Your task to perform on an android device: turn off priority inbox in the gmail app Image 0: 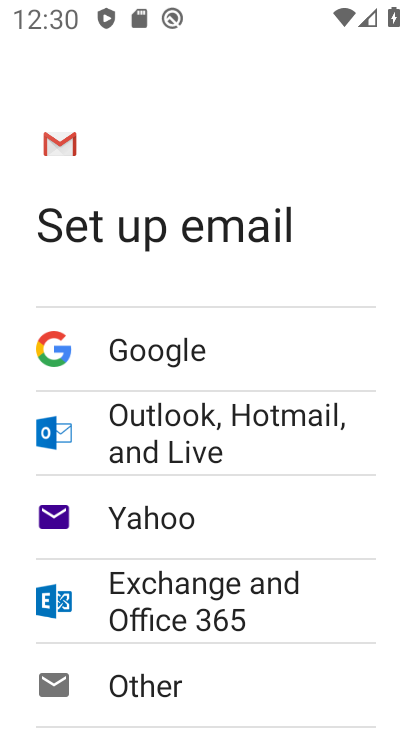
Step 0: press back button
Your task to perform on an android device: turn off priority inbox in the gmail app Image 1: 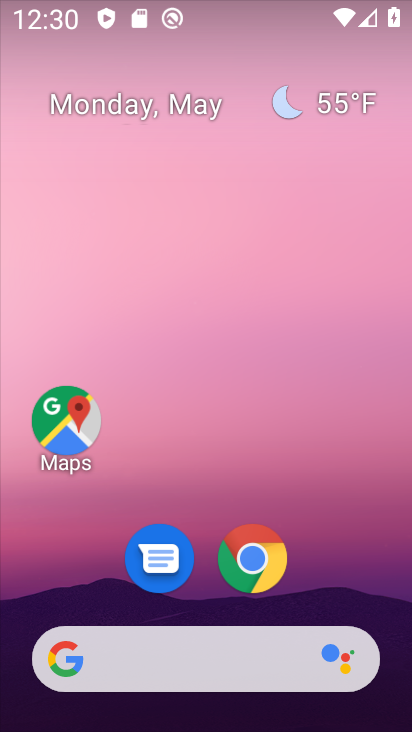
Step 1: drag from (326, 549) to (266, 44)
Your task to perform on an android device: turn off priority inbox in the gmail app Image 2: 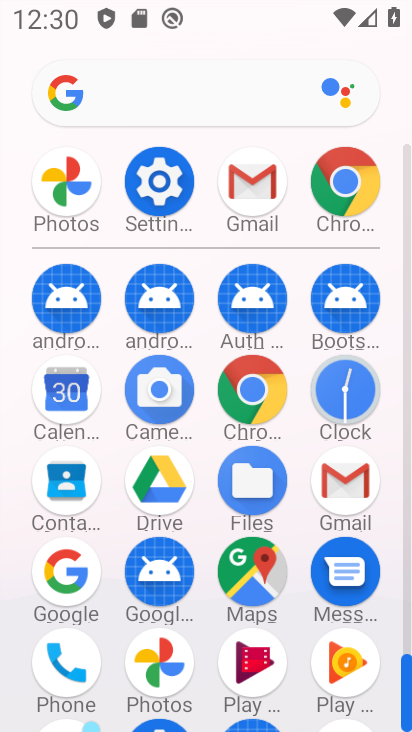
Step 2: click (336, 480)
Your task to perform on an android device: turn off priority inbox in the gmail app Image 3: 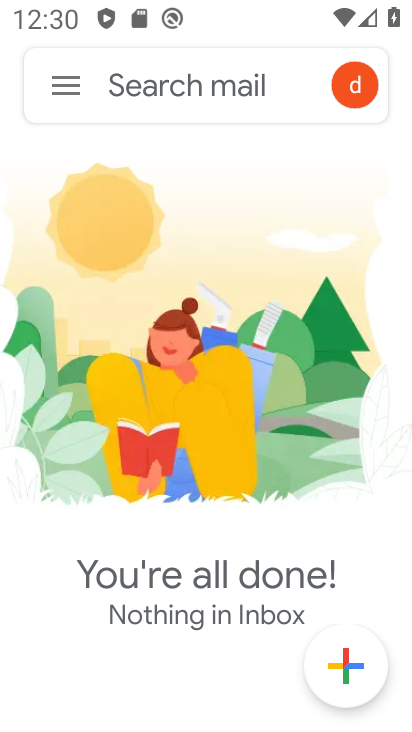
Step 3: click (61, 85)
Your task to perform on an android device: turn off priority inbox in the gmail app Image 4: 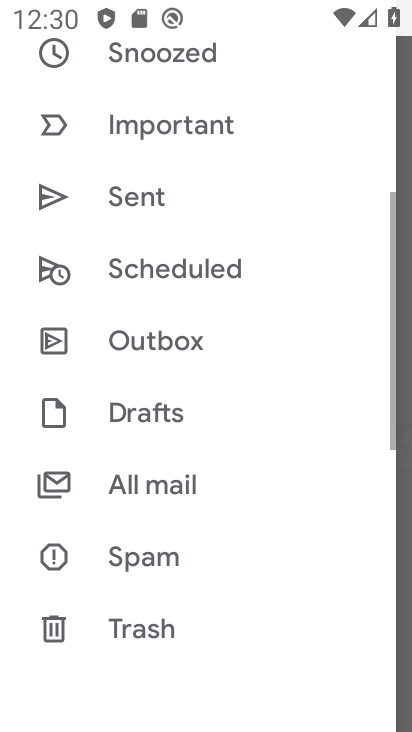
Step 4: drag from (239, 555) to (249, 98)
Your task to perform on an android device: turn off priority inbox in the gmail app Image 5: 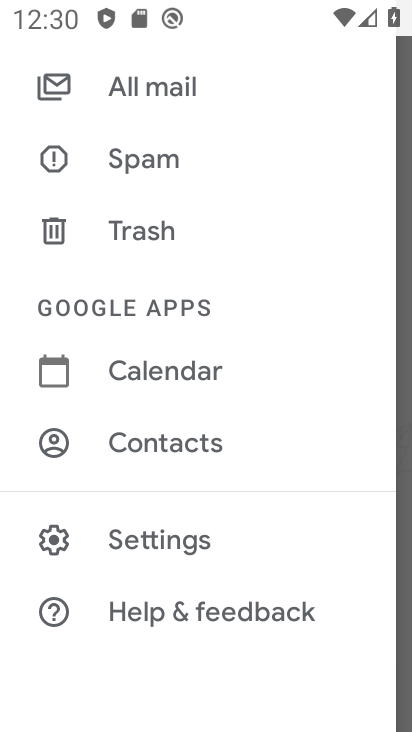
Step 5: click (195, 560)
Your task to perform on an android device: turn off priority inbox in the gmail app Image 6: 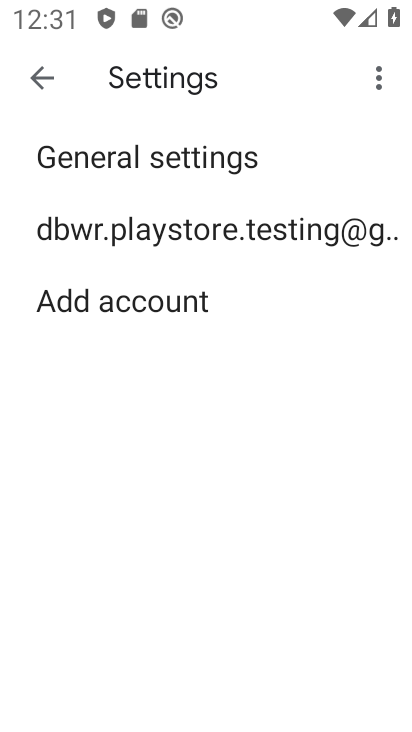
Step 6: click (206, 232)
Your task to perform on an android device: turn off priority inbox in the gmail app Image 7: 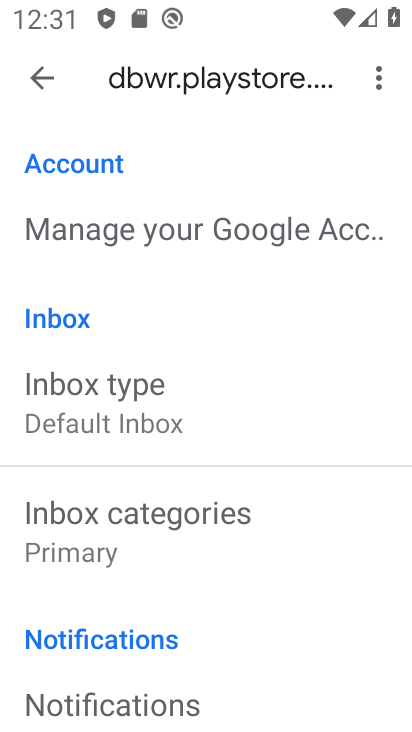
Step 7: click (160, 404)
Your task to perform on an android device: turn off priority inbox in the gmail app Image 8: 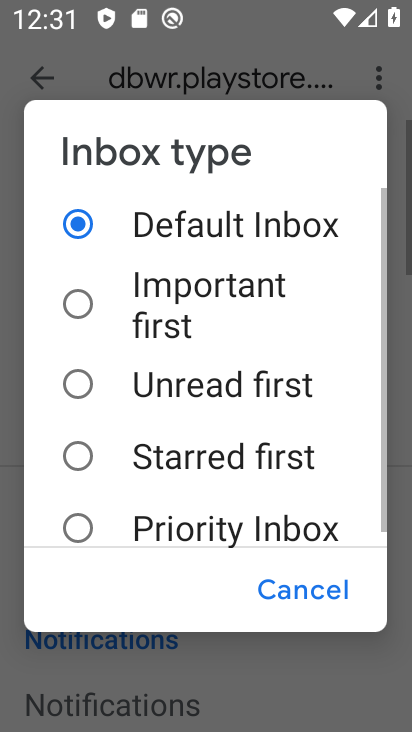
Step 8: click (232, 509)
Your task to perform on an android device: turn off priority inbox in the gmail app Image 9: 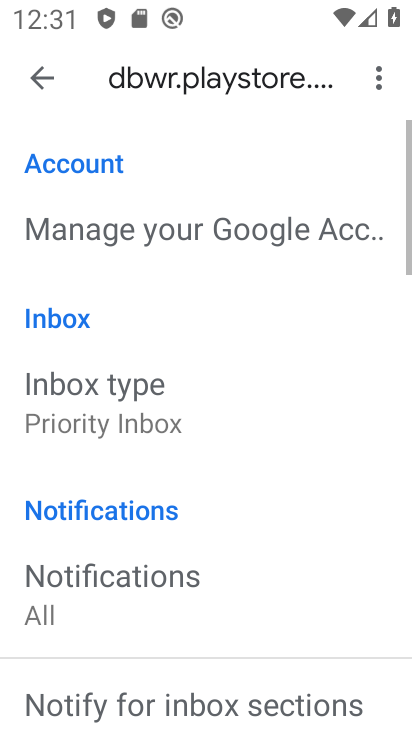
Step 9: drag from (253, 560) to (256, 208)
Your task to perform on an android device: turn off priority inbox in the gmail app Image 10: 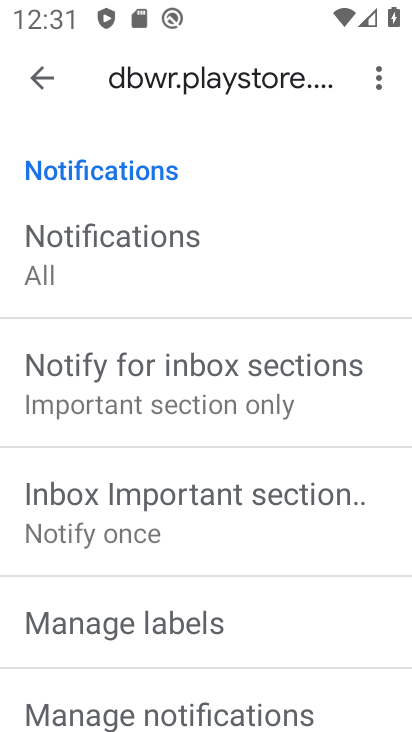
Step 10: drag from (269, 550) to (276, 173)
Your task to perform on an android device: turn off priority inbox in the gmail app Image 11: 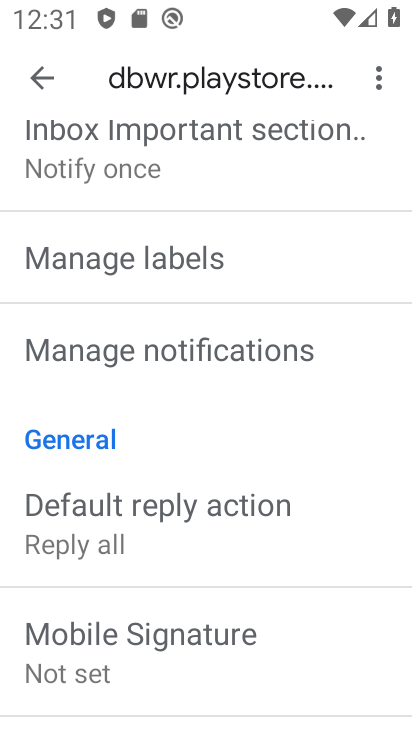
Step 11: drag from (239, 557) to (247, 127)
Your task to perform on an android device: turn off priority inbox in the gmail app Image 12: 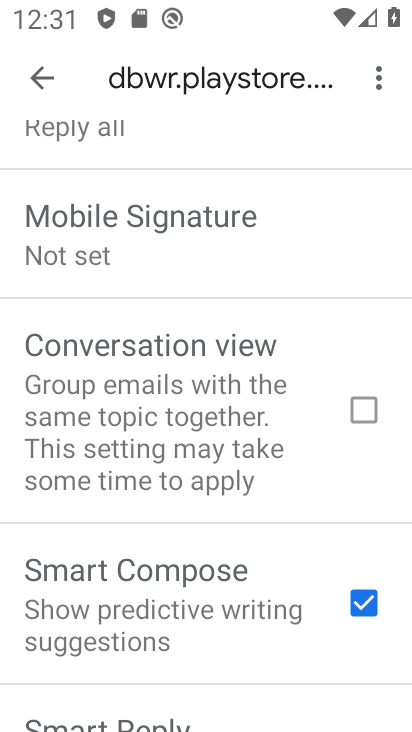
Step 12: drag from (280, 550) to (284, 187)
Your task to perform on an android device: turn off priority inbox in the gmail app Image 13: 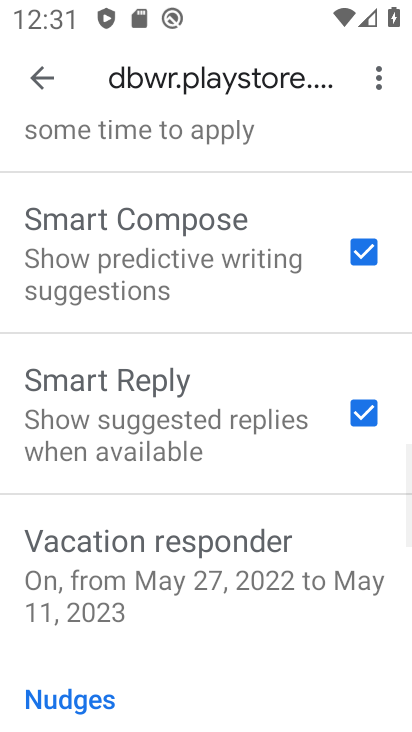
Step 13: drag from (266, 242) to (247, 675)
Your task to perform on an android device: turn off priority inbox in the gmail app Image 14: 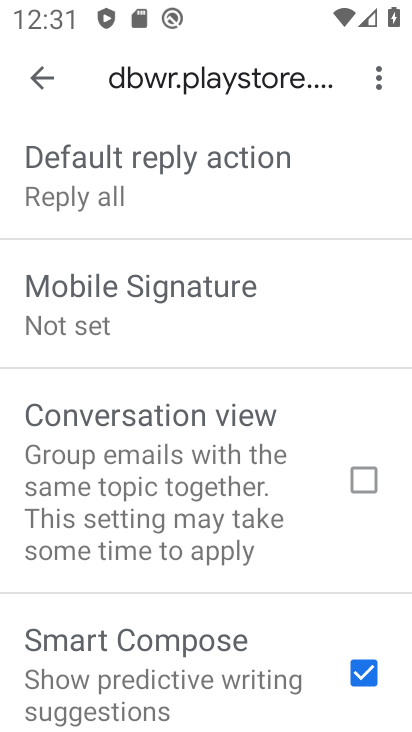
Step 14: drag from (240, 278) to (223, 589)
Your task to perform on an android device: turn off priority inbox in the gmail app Image 15: 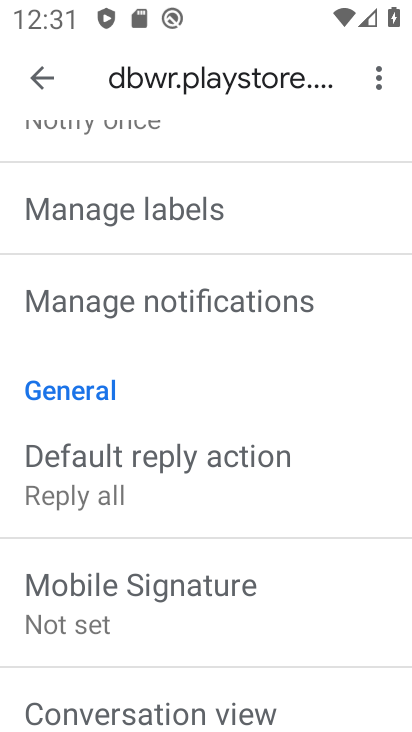
Step 15: drag from (230, 260) to (222, 534)
Your task to perform on an android device: turn off priority inbox in the gmail app Image 16: 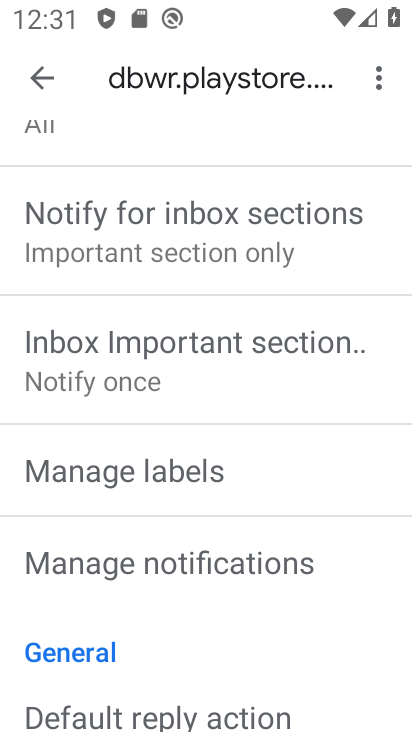
Step 16: drag from (197, 226) to (215, 583)
Your task to perform on an android device: turn off priority inbox in the gmail app Image 17: 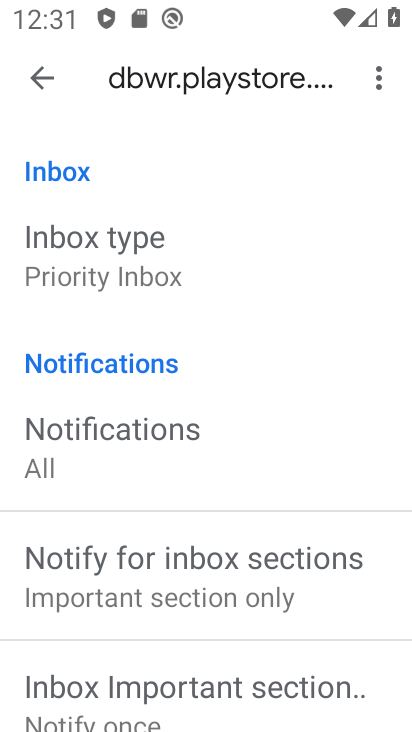
Step 17: click (161, 268)
Your task to perform on an android device: turn off priority inbox in the gmail app Image 18: 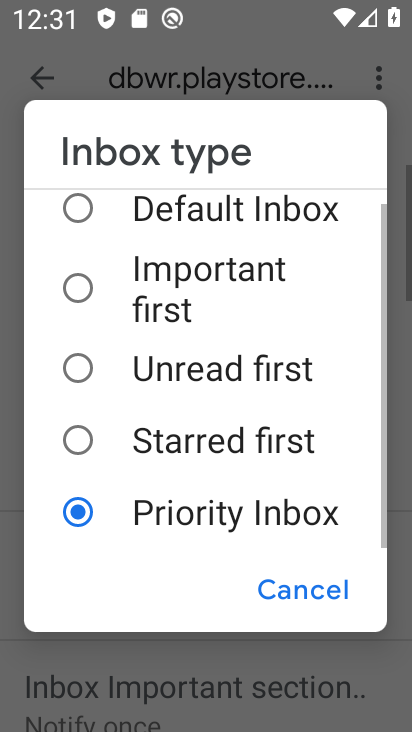
Step 18: click (223, 213)
Your task to perform on an android device: turn off priority inbox in the gmail app Image 19: 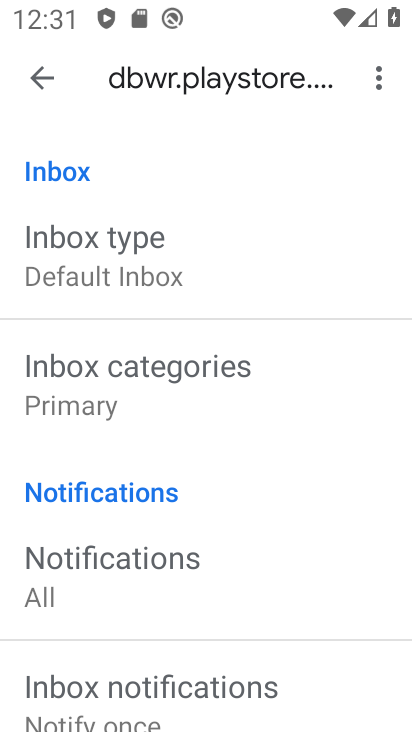
Step 19: task complete